Your task to perform on an android device: turn off notifications settings in the gmail app Image 0: 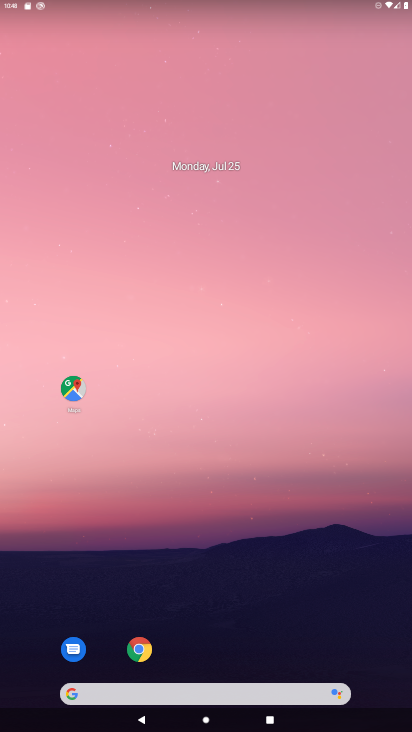
Step 0: drag from (391, 692) to (342, 250)
Your task to perform on an android device: turn off notifications settings in the gmail app Image 1: 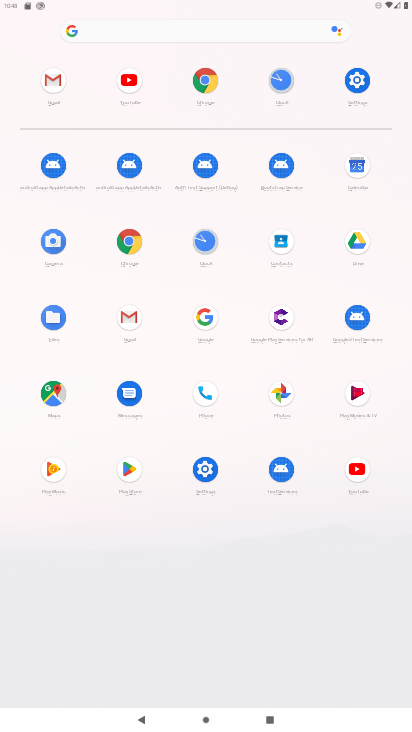
Step 1: click (129, 315)
Your task to perform on an android device: turn off notifications settings in the gmail app Image 2: 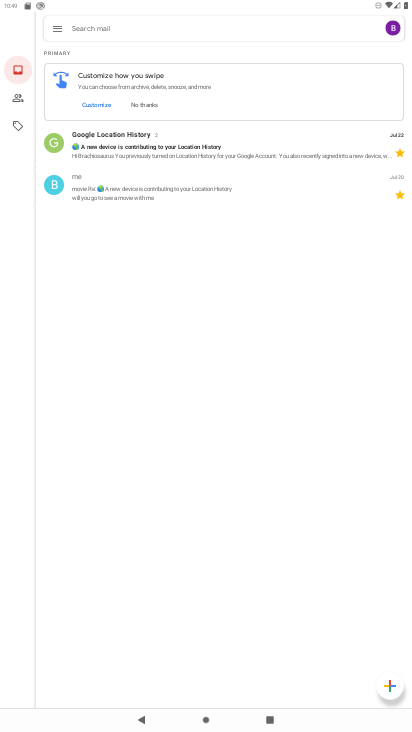
Step 2: click (56, 29)
Your task to perform on an android device: turn off notifications settings in the gmail app Image 3: 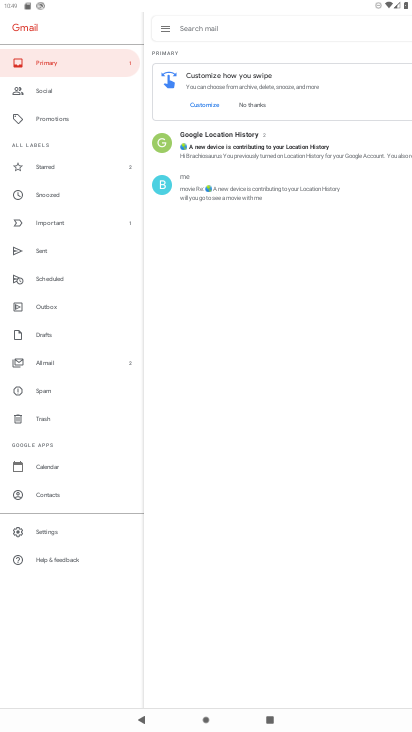
Step 3: click (44, 530)
Your task to perform on an android device: turn off notifications settings in the gmail app Image 4: 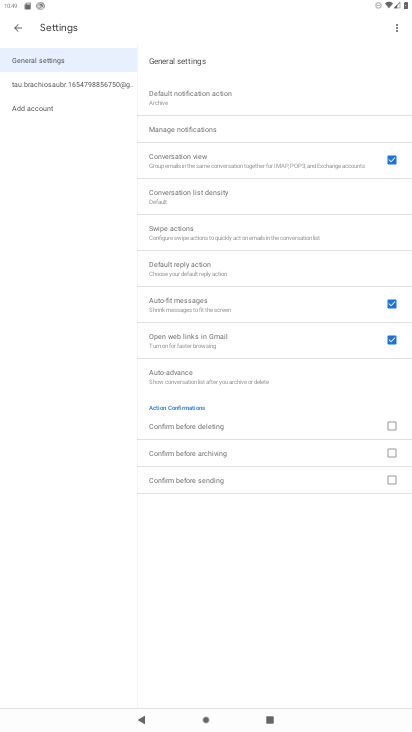
Step 4: click (69, 85)
Your task to perform on an android device: turn off notifications settings in the gmail app Image 5: 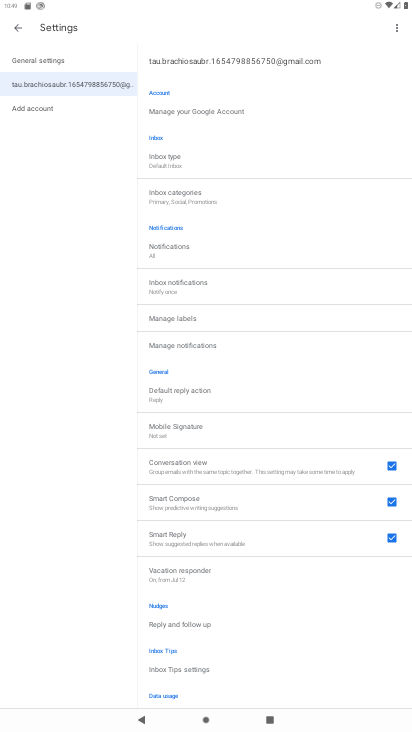
Step 5: click (196, 343)
Your task to perform on an android device: turn off notifications settings in the gmail app Image 6: 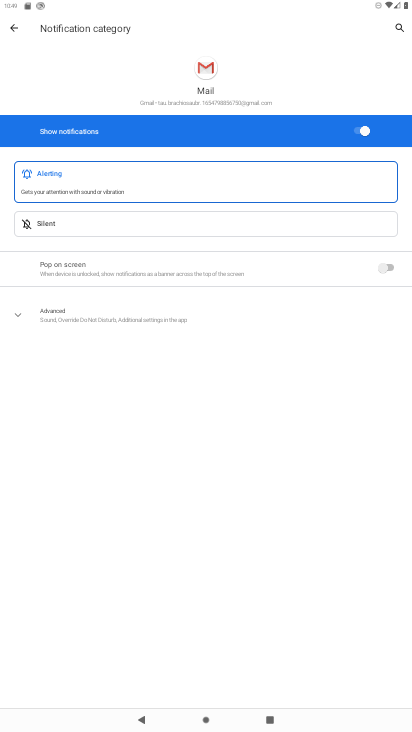
Step 6: click (354, 133)
Your task to perform on an android device: turn off notifications settings in the gmail app Image 7: 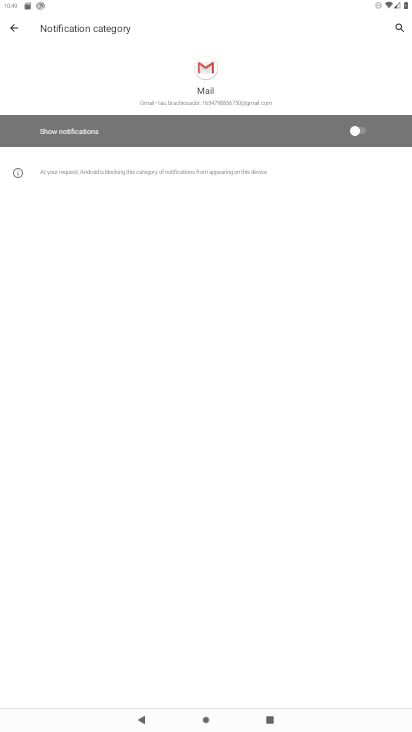
Step 7: task complete